Your task to perform on an android device: toggle javascript in the chrome app Image 0: 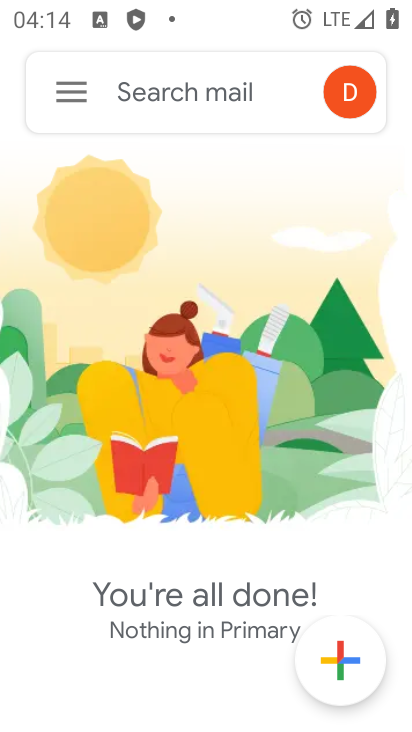
Step 0: press home button
Your task to perform on an android device: toggle javascript in the chrome app Image 1: 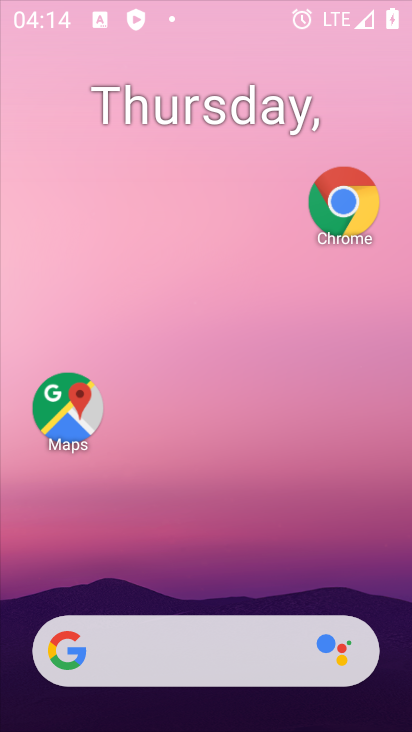
Step 1: drag from (262, 633) to (316, 12)
Your task to perform on an android device: toggle javascript in the chrome app Image 2: 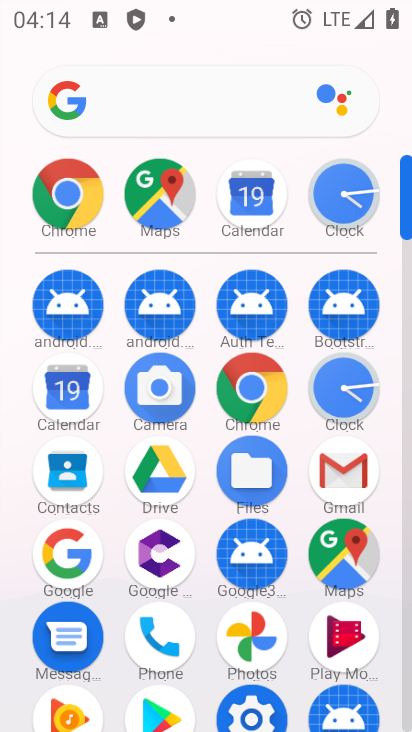
Step 2: click (268, 392)
Your task to perform on an android device: toggle javascript in the chrome app Image 3: 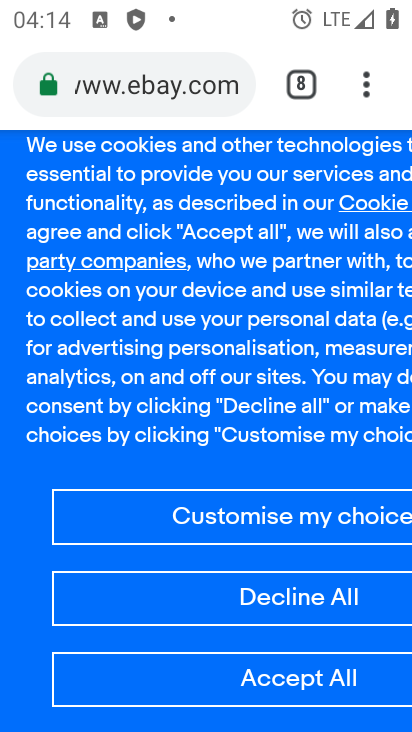
Step 3: click (364, 72)
Your task to perform on an android device: toggle javascript in the chrome app Image 4: 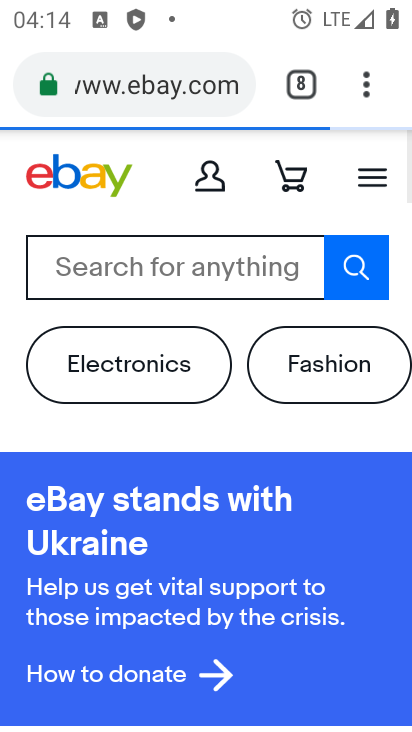
Step 4: drag from (357, 67) to (135, 608)
Your task to perform on an android device: toggle javascript in the chrome app Image 5: 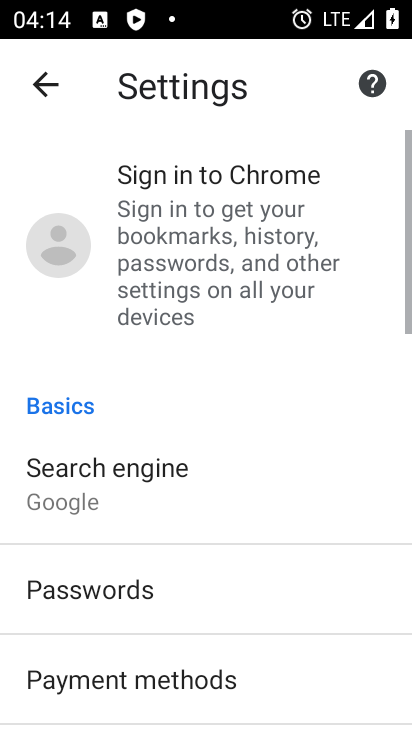
Step 5: drag from (143, 640) to (173, 171)
Your task to perform on an android device: toggle javascript in the chrome app Image 6: 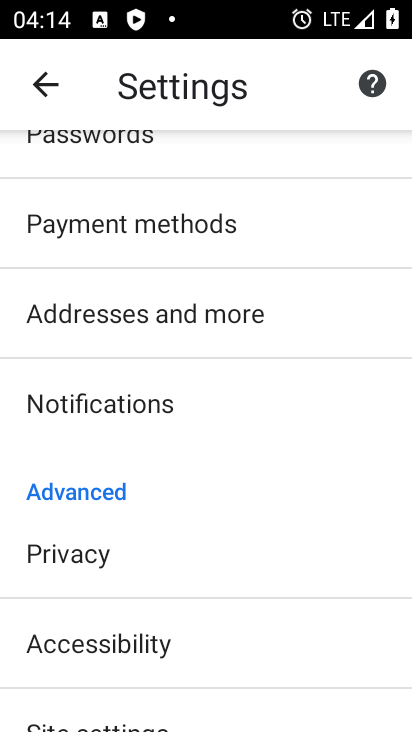
Step 6: drag from (179, 679) to (218, 198)
Your task to perform on an android device: toggle javascript in the chrome app Image 7: 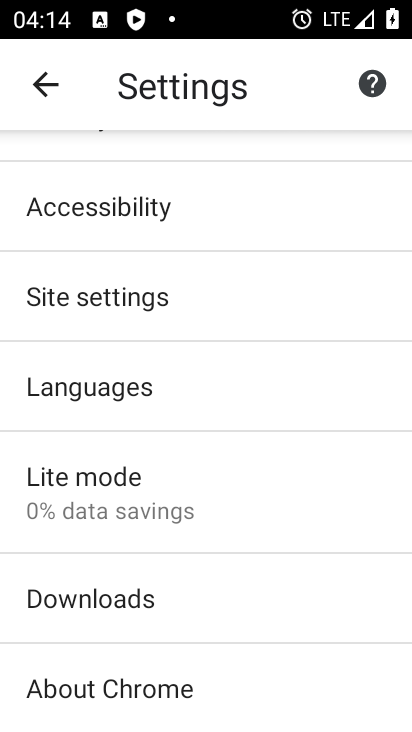
Step 7: click (171, 295)
Your task to perform on an android device: toggle javascript in the chrome app Image 8: 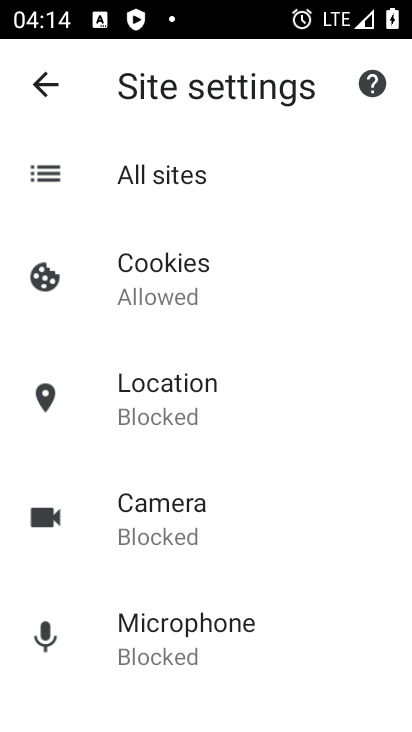
Step 8: drag from (270, 590) to (247, 163)
Your task to perform on an android device: toggle javascript in the chrome app Image 9: 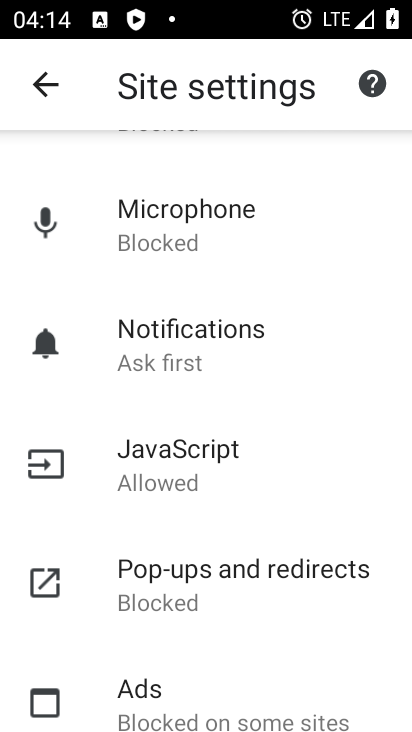
Step 9: click (173, 459)
Your task to perform on an android device: toggle javascript in the chrome app Image 10: 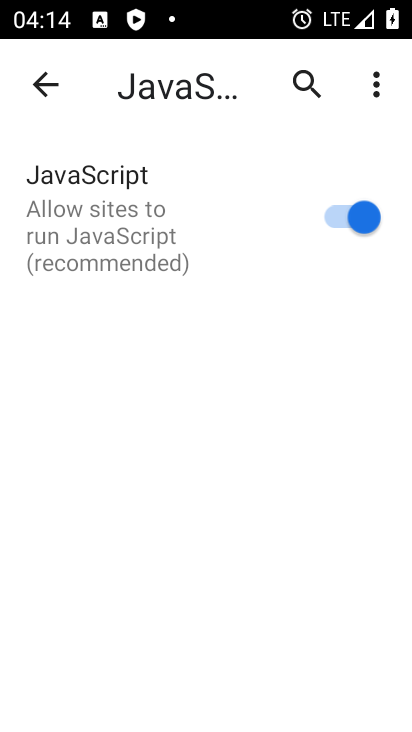
Step 10: click (348, 216)
Your task to perform on an android device: toggle javascript in the chrome app Image 11: 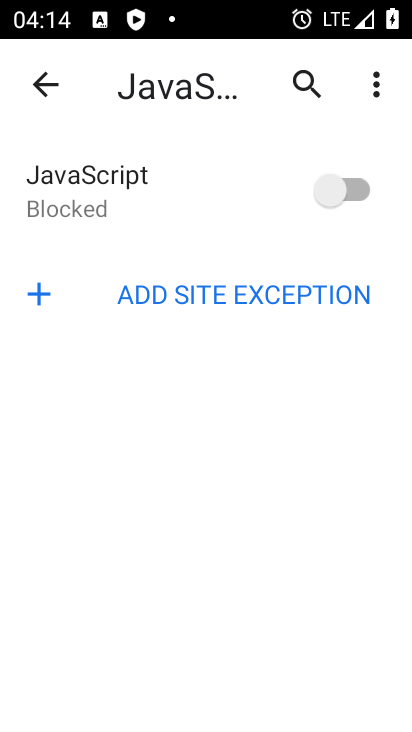
Step 11: task complete